Your task to perform on an android device: add a contact Image 0: 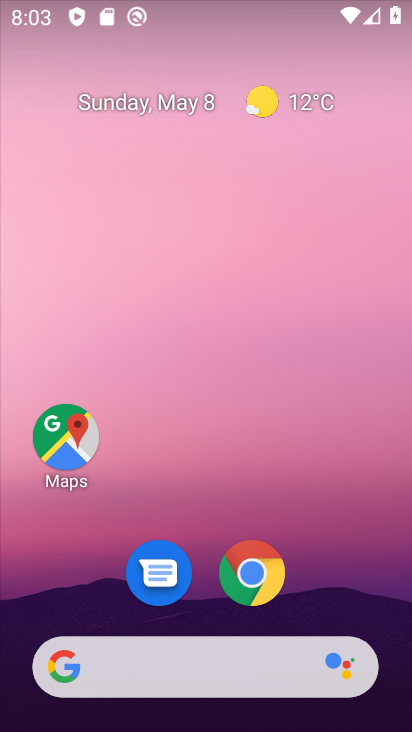
Step 0: drag from (219, 720) to (222, 125)
Your task to perform on an android device: add a contact Image 1: 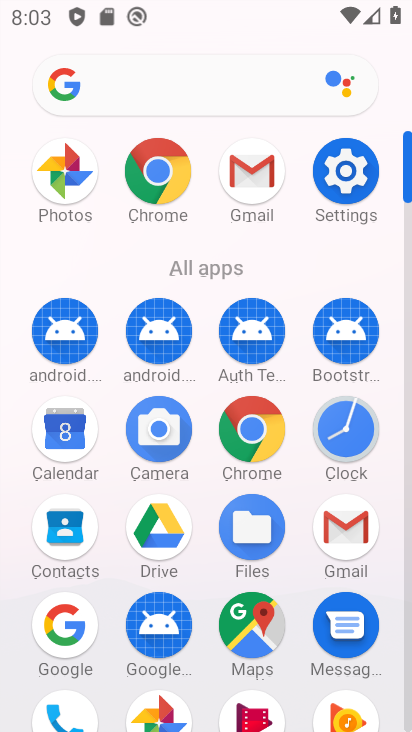
Step 1: click (62, 527)
Your task to perform on an android device: add a contact Image 2: 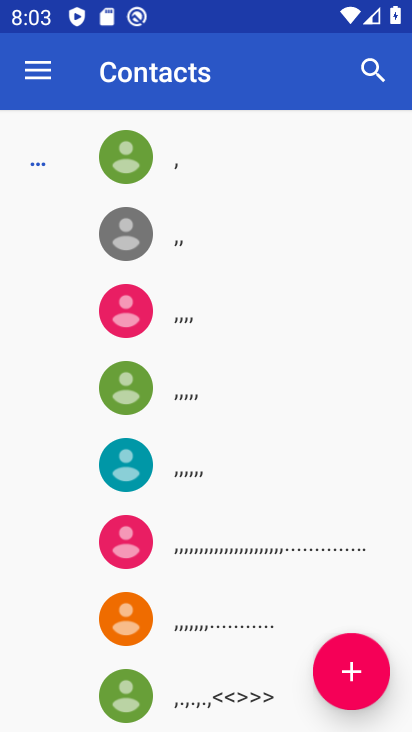
Step 2: click (345, 663)
Your task to perform on an android device: add a contact Image 3: 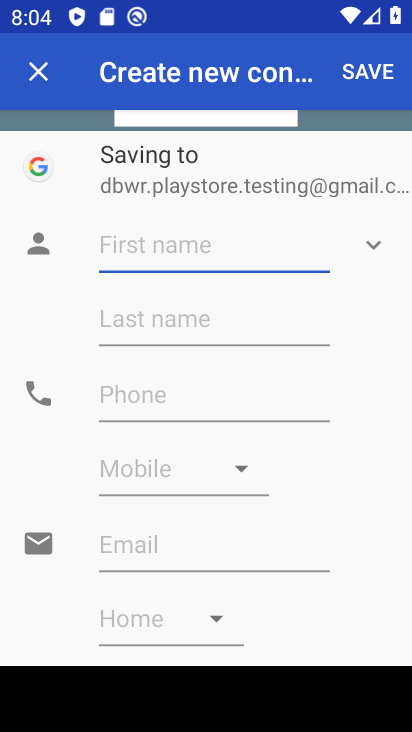
Step 3: type "inter"
Your task to perform on an android device: add a contact Image 4: 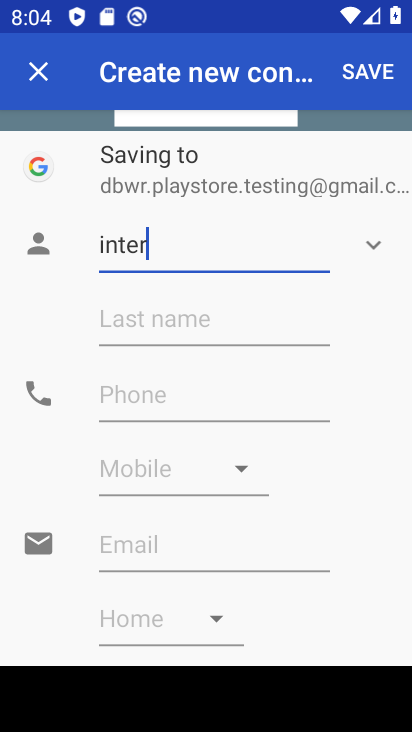
Step 4: click (356, 66)
Your task to perform on an android device: add a contact Image 5: 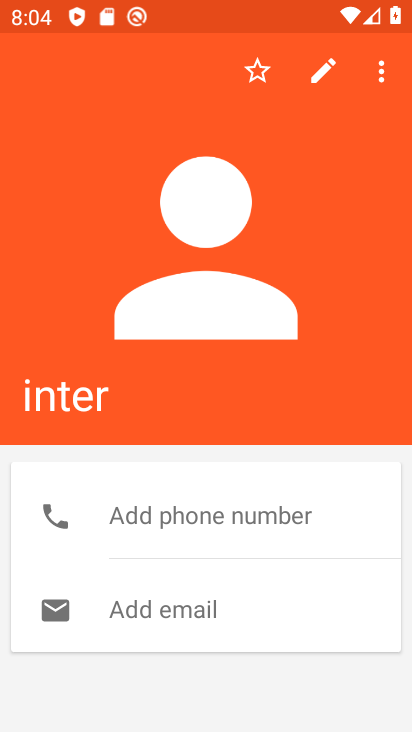
Step 5: task complete